Your task to perform on an android device: Open notification settings Image 0: 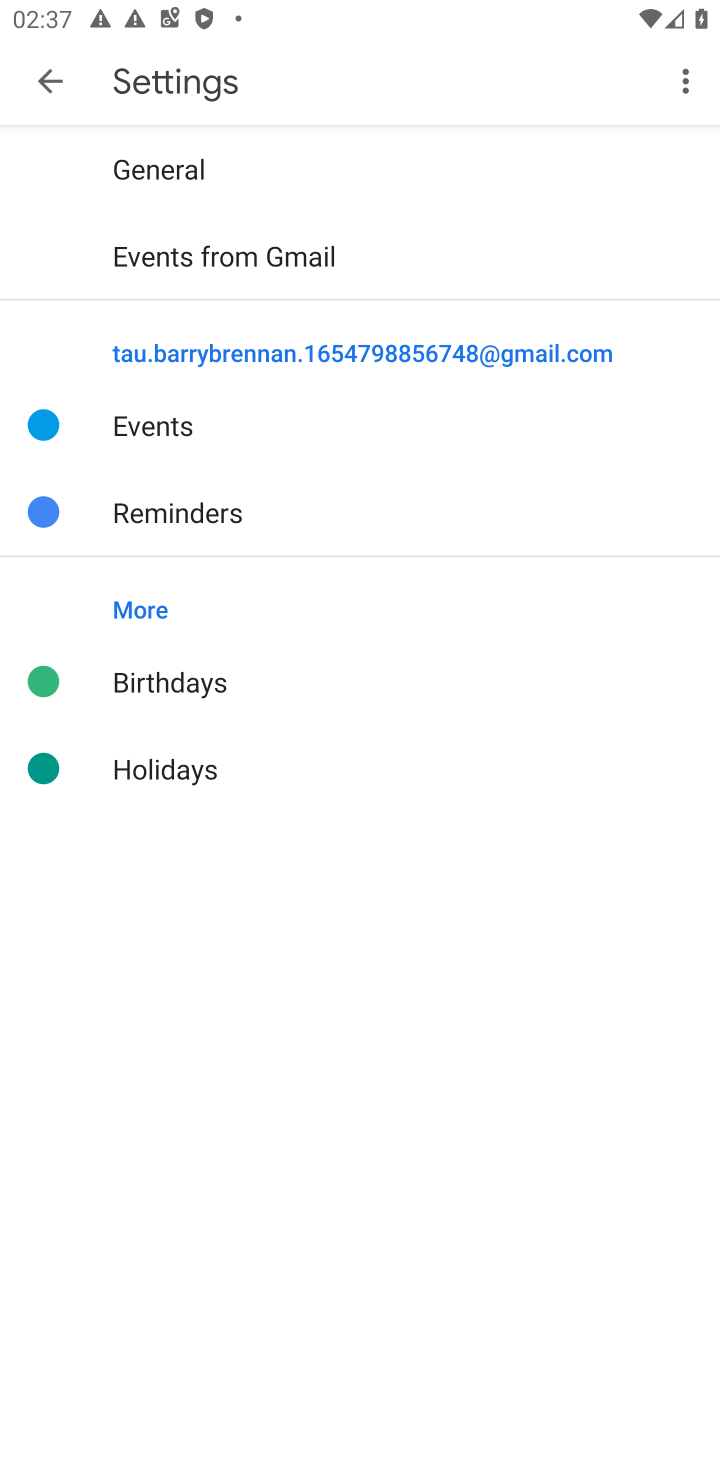
Step 0: press home button
Your task to perform on an android device: Open notification settings Image 1: 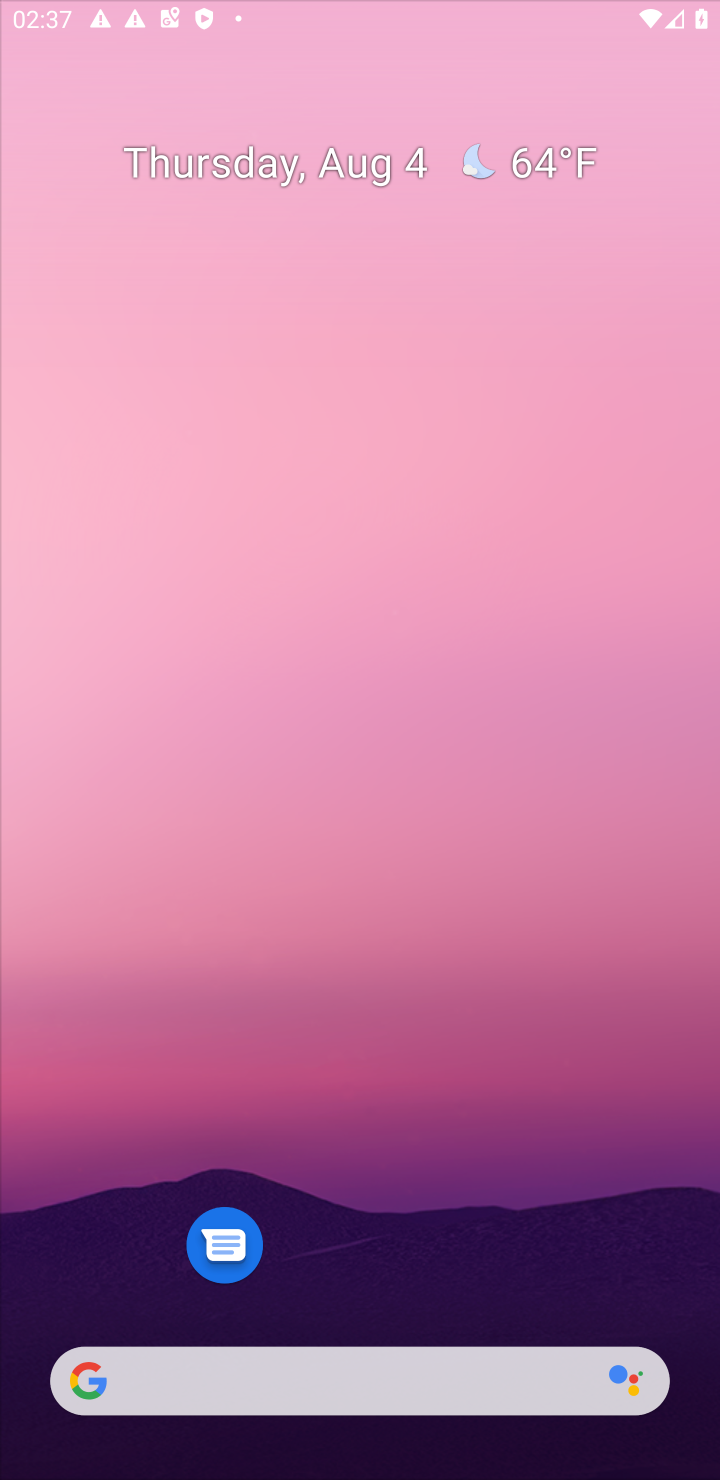
Step 1: drag from (270, 1361) to (533, 283)
Your task to perform on an android device: Open notification settings Image 2: 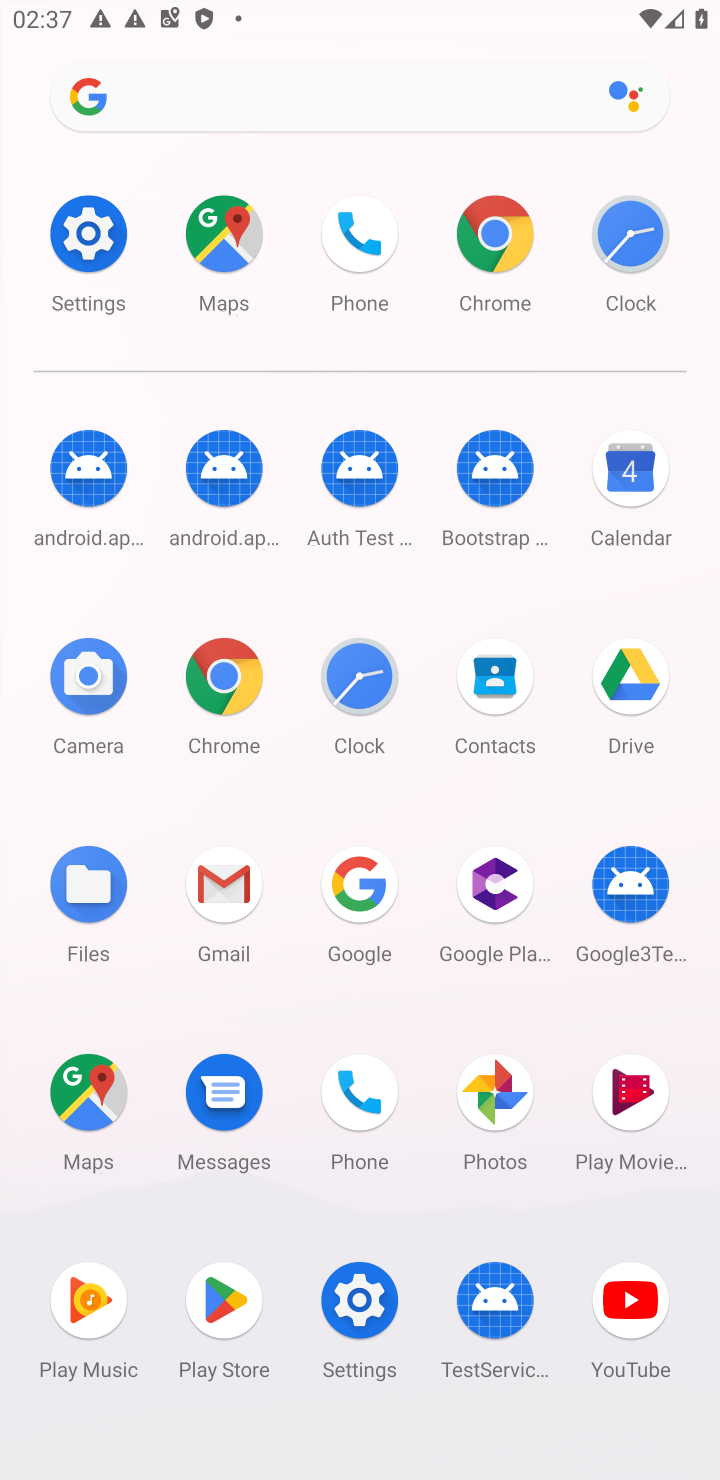
Step 2: click (93, 225)
Your task to perform on an android device: Open notification settings Image 3: 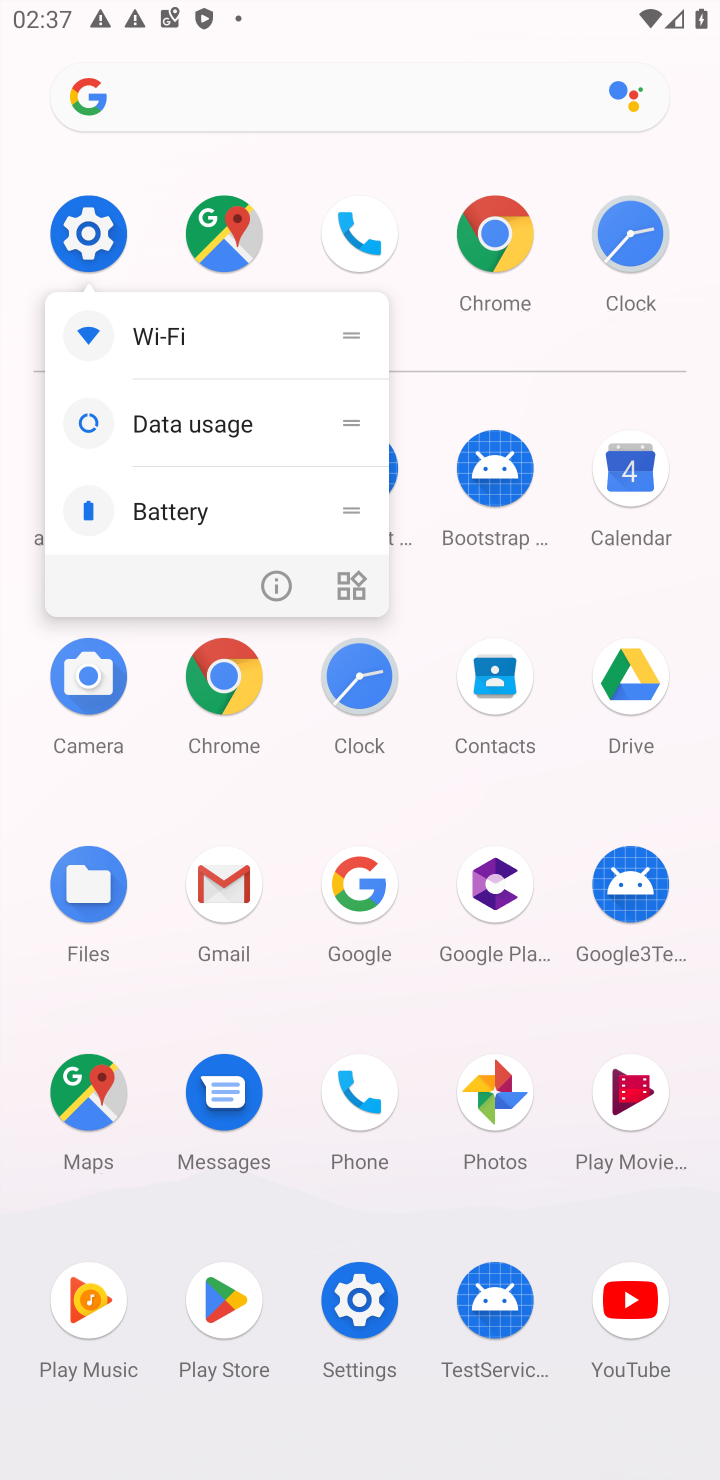
Step 3: click (354, 1295)
Your task to perform on an android device: Open notification settings Image 4: 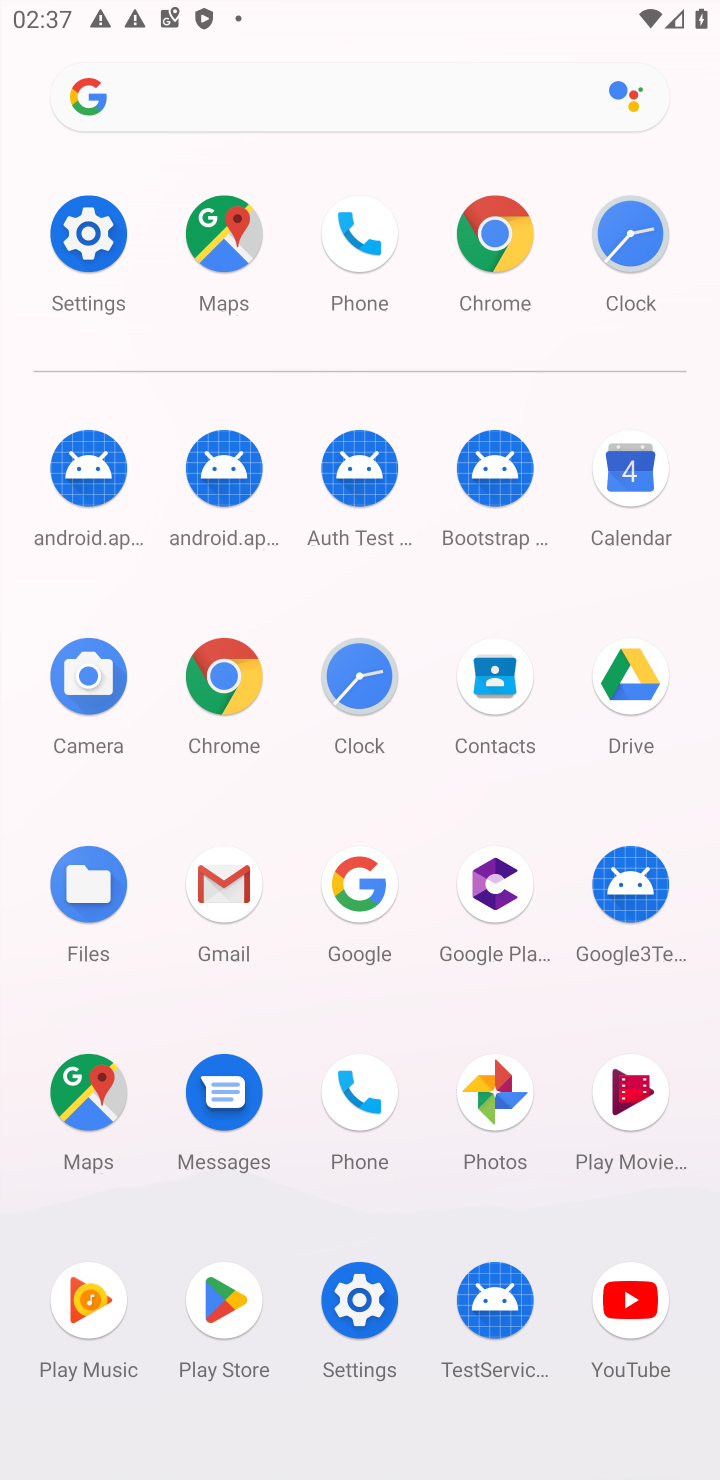
Step 4: click (357, 1331)
Your task to perform on an android device: Open notification settings Image 5: 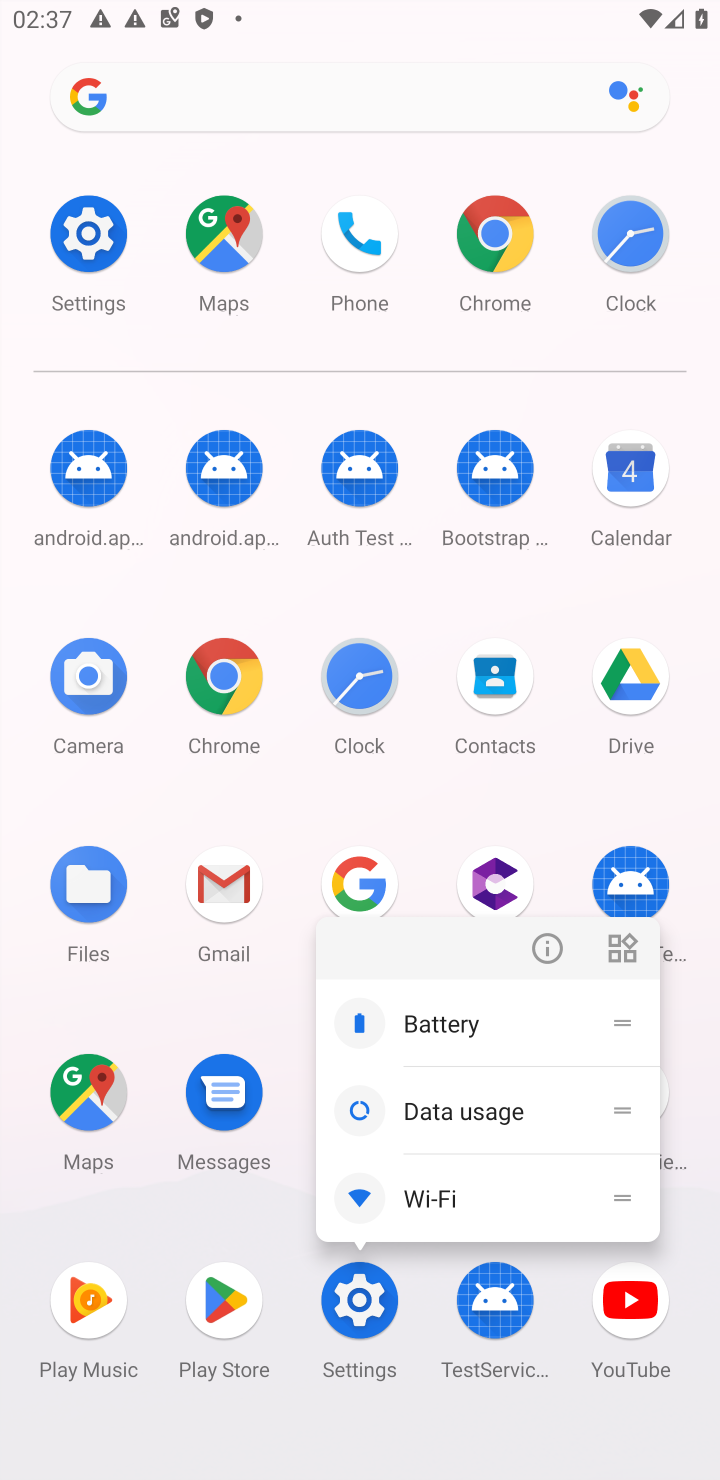
Step 5: click (357, 1320)
Your task to perform on an android device: Open notification settings Image 6: 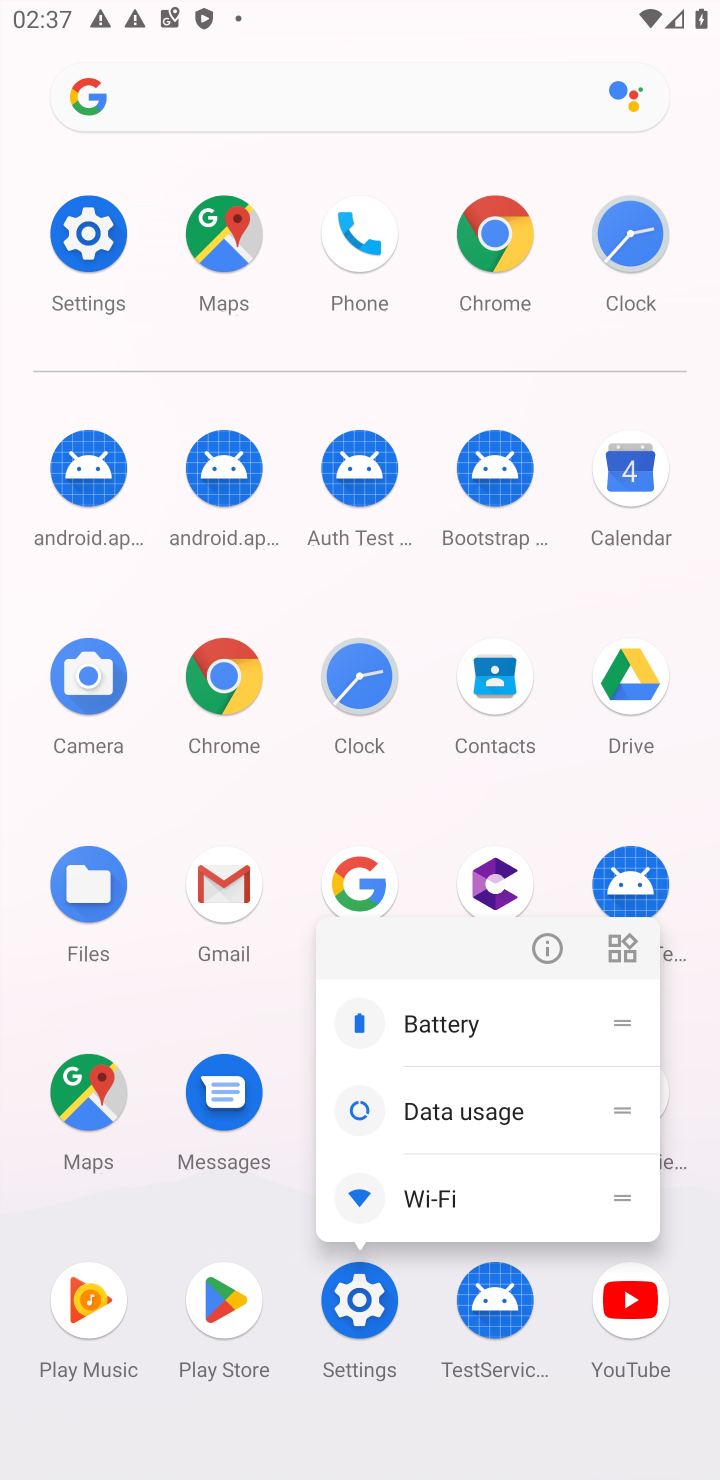
Step 6: click (357, 1320)
Your task to perform on an android device: Open notification settings Image 7: 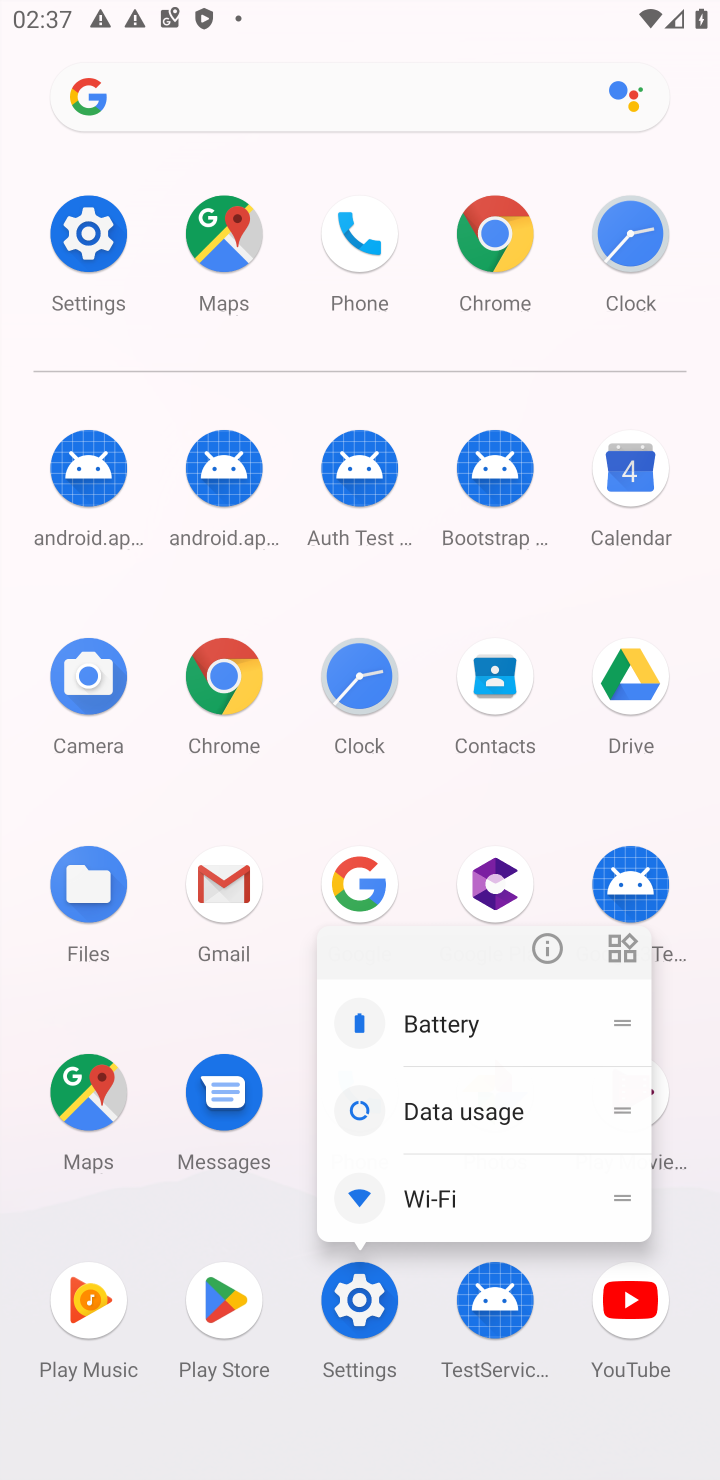
Step 7: click (357, 1320)
Your task to perform on an android device: Open notification settings Image 8: 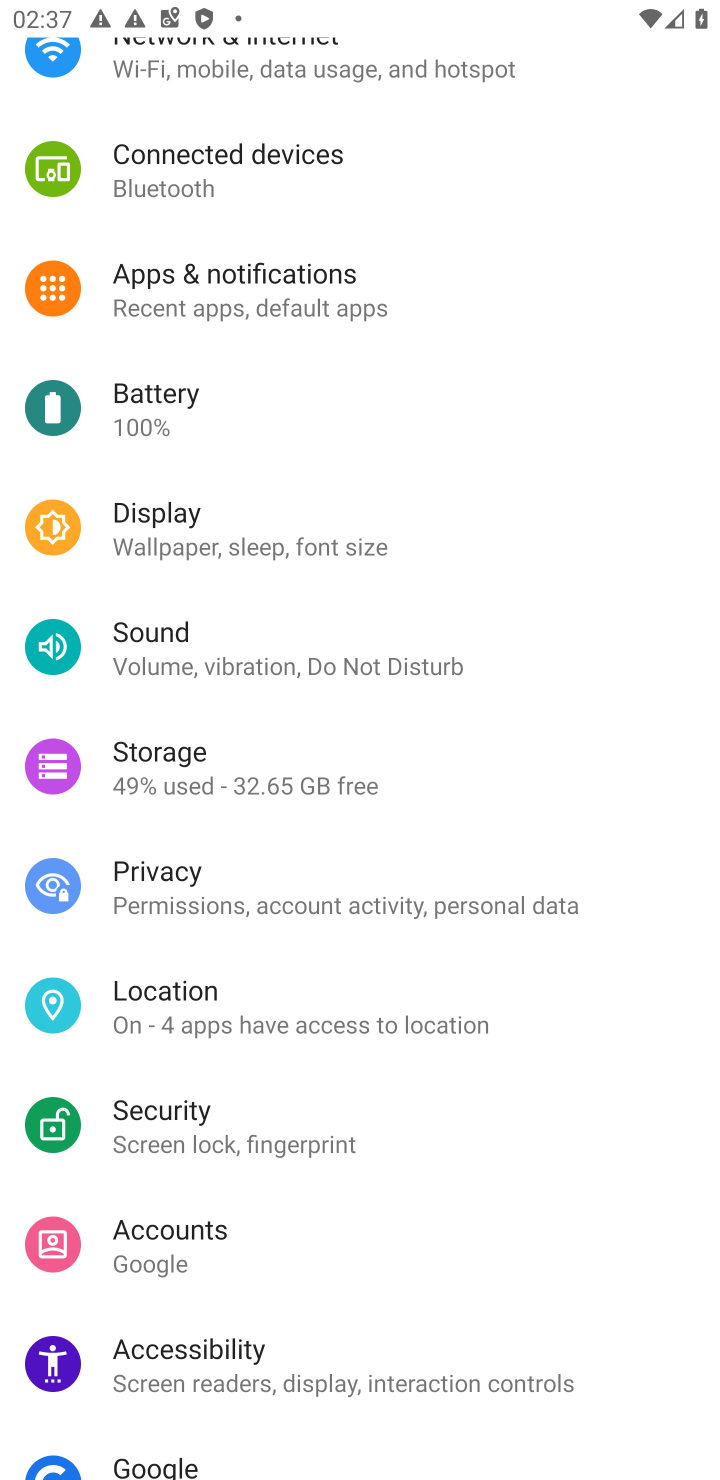
Step 8: click (333, 319)
Your task to perform on an android device: Open notification settings Image 9: 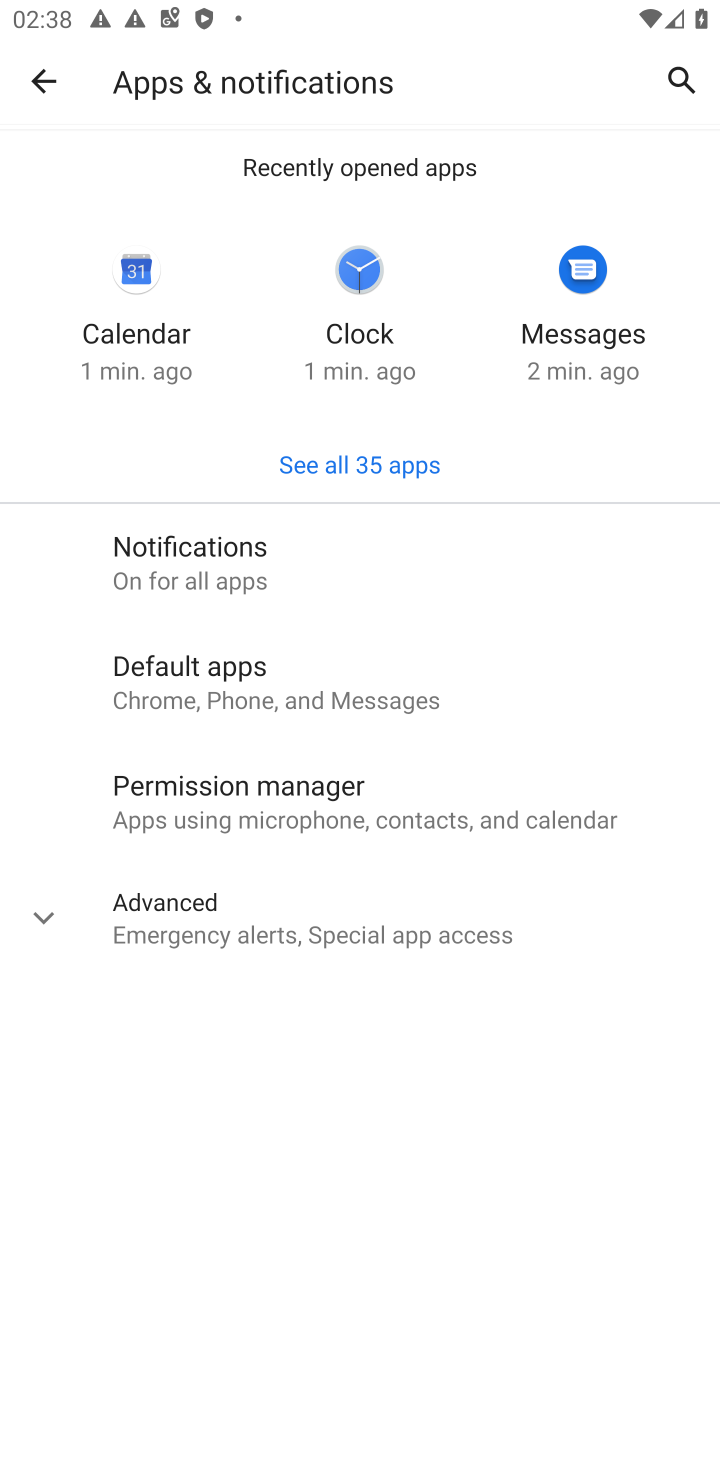
Step 9: click (215, 551)
Your task to perform on an android device: Open notification settings Image 10: 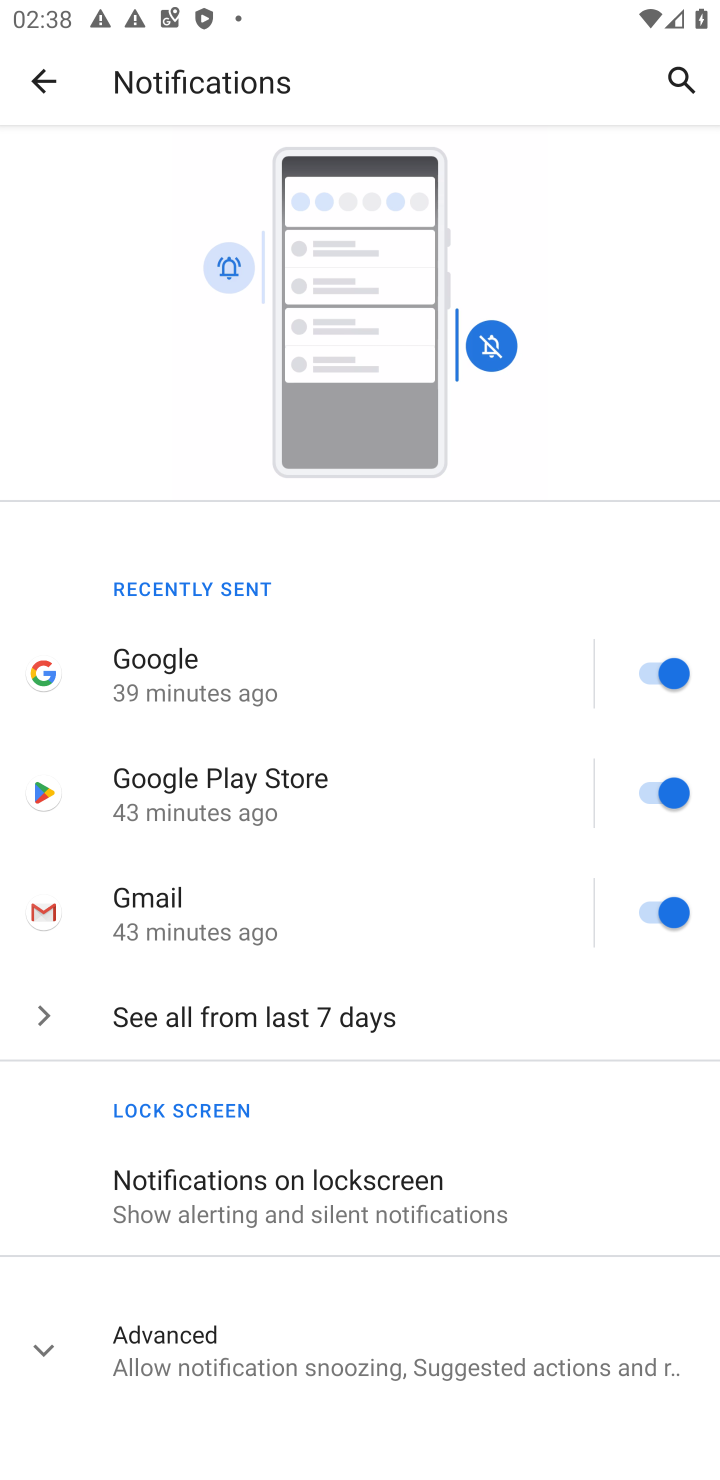
Step 10: task complete